Your task to perform on an android device: Open the phone app and click the voicemail tab. Image 0: 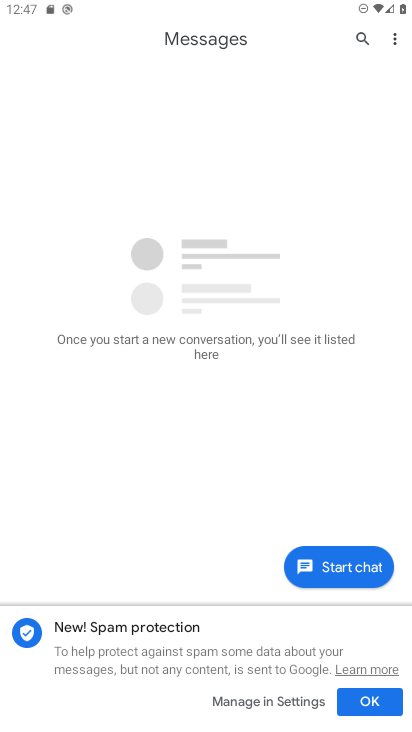
Step 0: press home button
Your task to perform on an android device: Open the phone app and click the voicemail tab. Image 1: 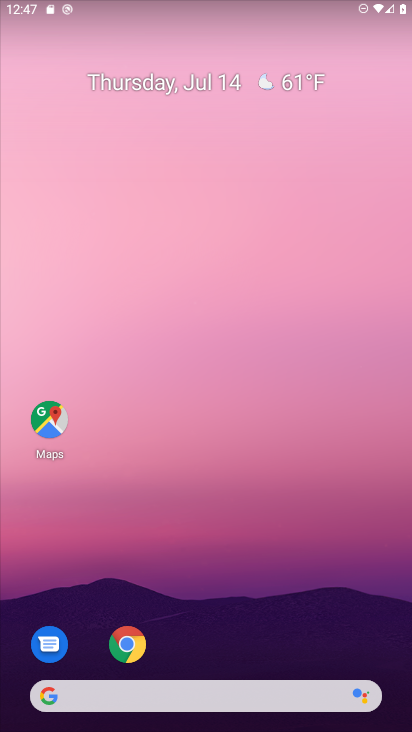
Step 1: drag from (270, 605) to (206, 100)
Your task to perform on an android device: Open the phone app and click the voicemail tab. Image 2: 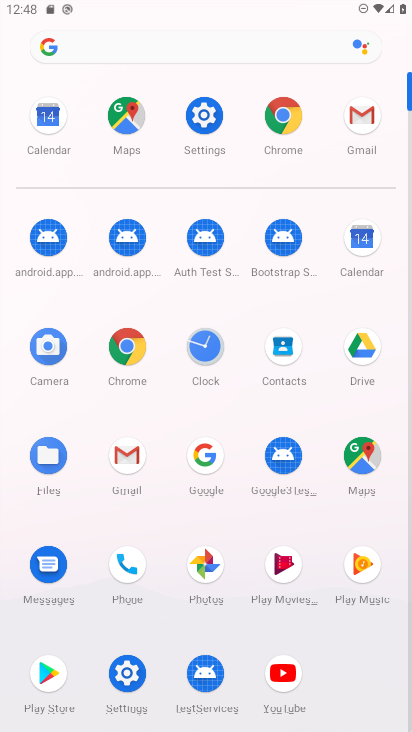
Step 2: click (133, 554)
Your task to perform on an android device: Open the phone app and click the voicemail tab. Image 3: 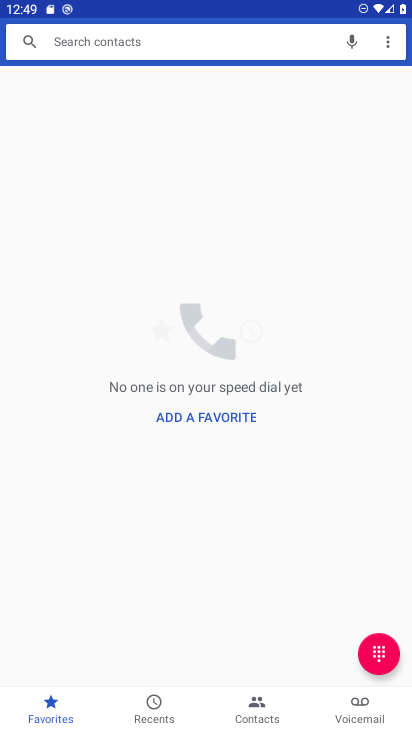
Step 3: click (373, 708)
Your task to perform on an android device: Open the phone app and click the voicemail tab. Image 4: 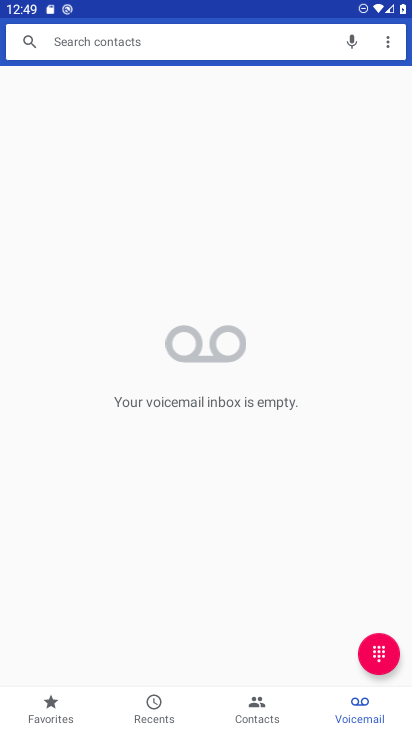
Step 4: task complete